Your task to perform on an android device: Open accessibility settings Image 0: 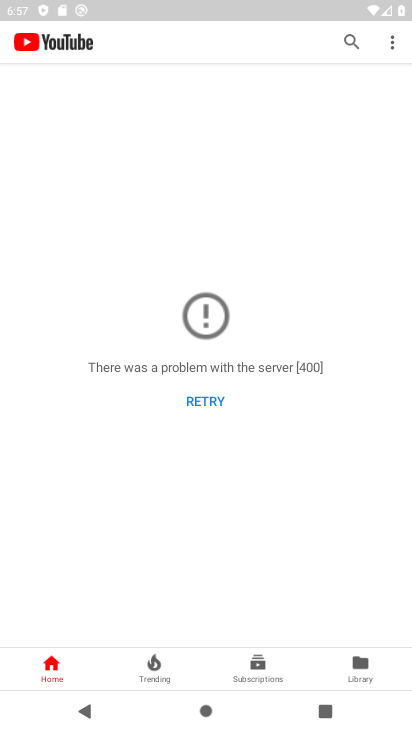
Step 0: press home button
Your task to perform on an android device: Open accessibility settings Image 1: 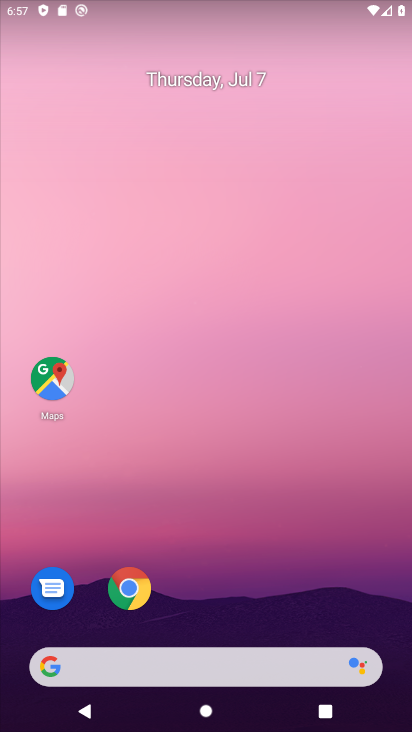
Step 1: drag from (244, 593) to (221, 106)
Your task to perform on an android device: Open accessibility settings Image 2: 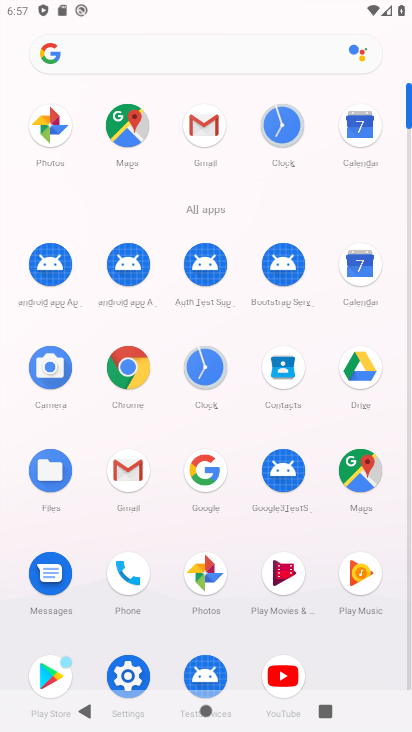
Step 2: click (130, 674)
Your task to perform on an android device: Open accessibility settings Image 3: 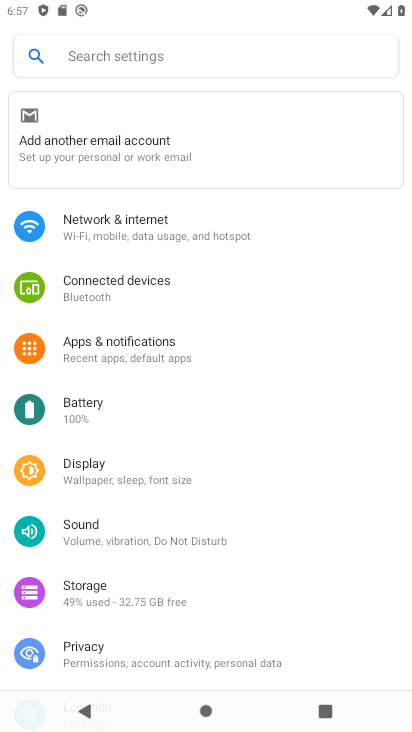
Step 3: drag from (144, 550) to (214, 439)
Your task to perform on an android device: Open accessibility settings Image 4: 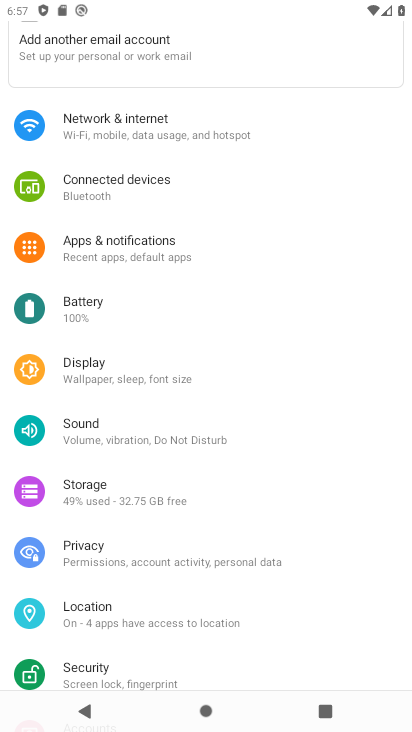
Step 4: drag from (99, 574) to (201, 455)
Your task to perform on an android device: Open accessibility settings Image 5: 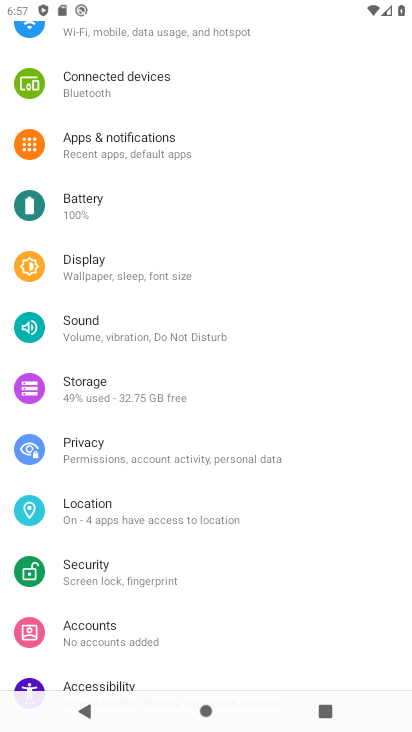
Step 5: drag from (86, 607) to (209, 481)
Your task to perform on an android device: Open accessibility settings Image 6: 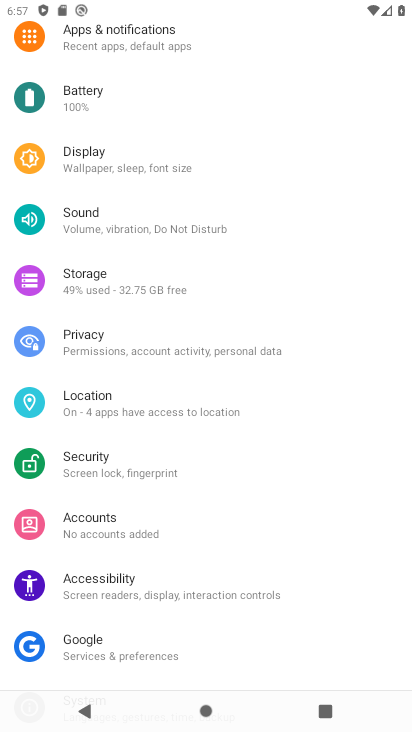
Step 6: click (99, 573)
Your task to perform on an android device: Open accessibility settings Image 7: 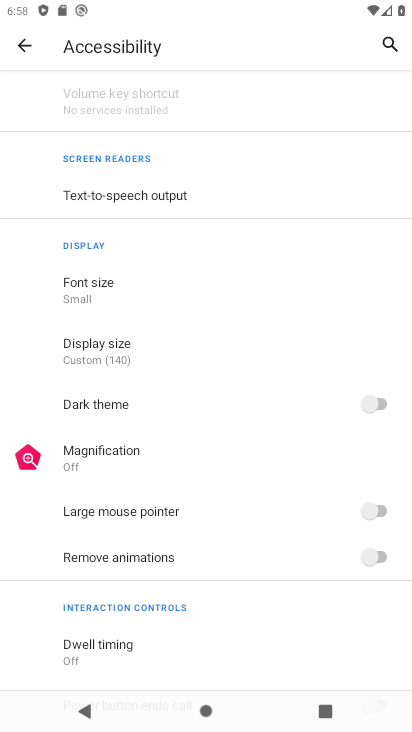
Step 7: task complete